Your task to perform on an android device: Open the stopwatch Image 0: 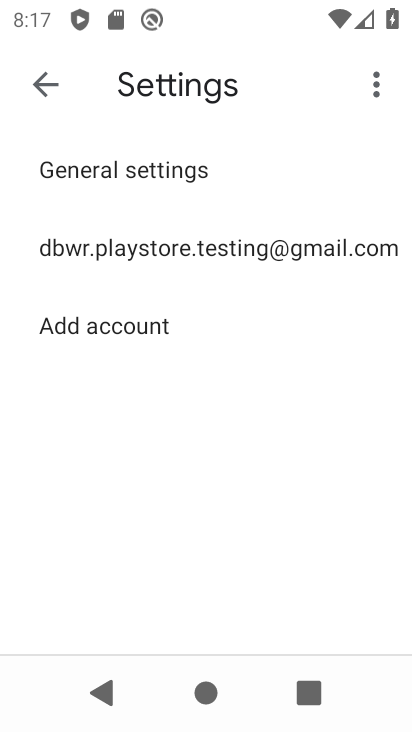
Step 0: press home button
Your task to perform on an android device: Open the stopwatch Image 1: 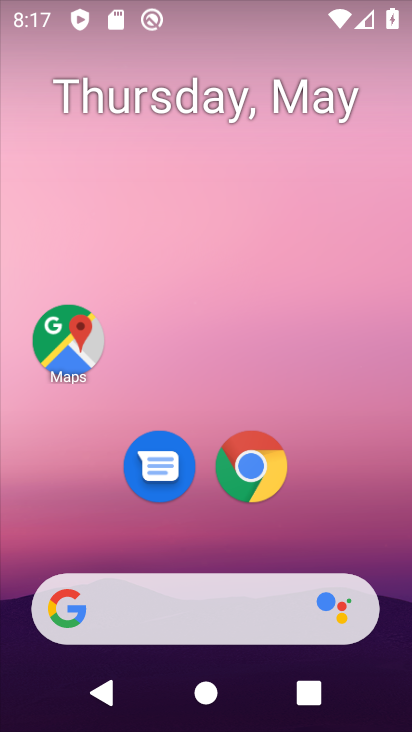
Step 1: drag from (372, 519) to (316, 121)
Your task to perform on an android device: Open the stopwatch Image 2: 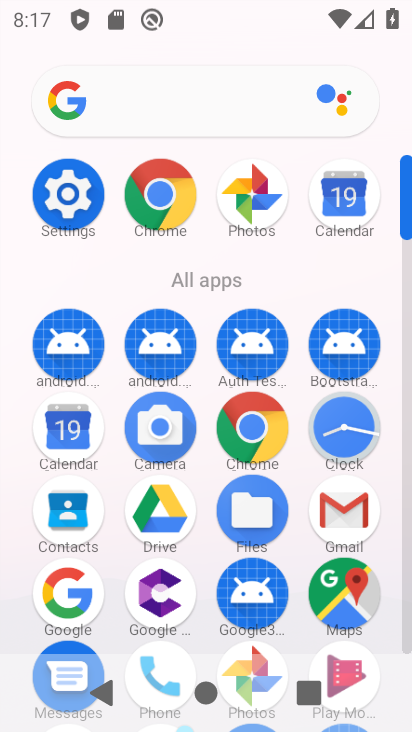
Step 2: click (356, 415)
Your task to perform on an android device: Open the stopwatch Image 3: 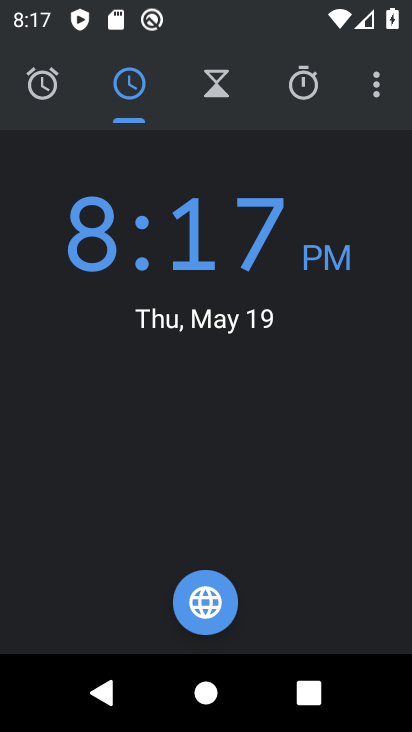
Step 3: click (290, 104)
Your task to perform on an android device: Open the stopwatch Image 4: 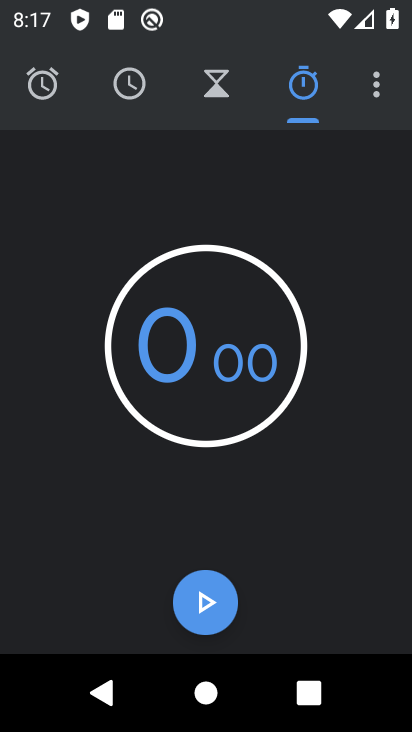
Step 4: task complete